Your task to perform on an android device: open chrome privacy settings Image 0: 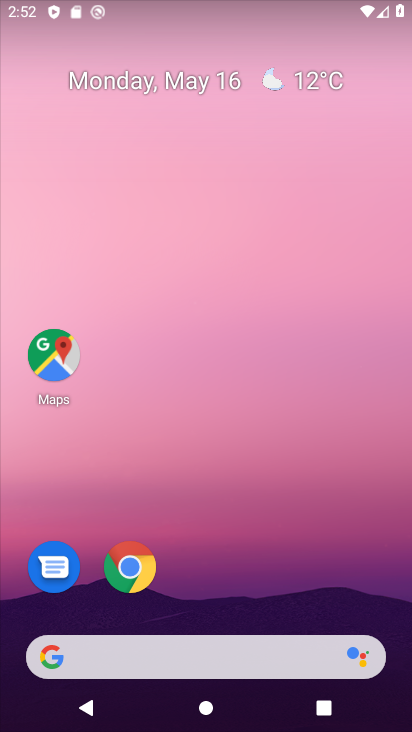
Step 0: click (138, 590)
Your task to perform on an android device: open chrome privacy settings Image 1: 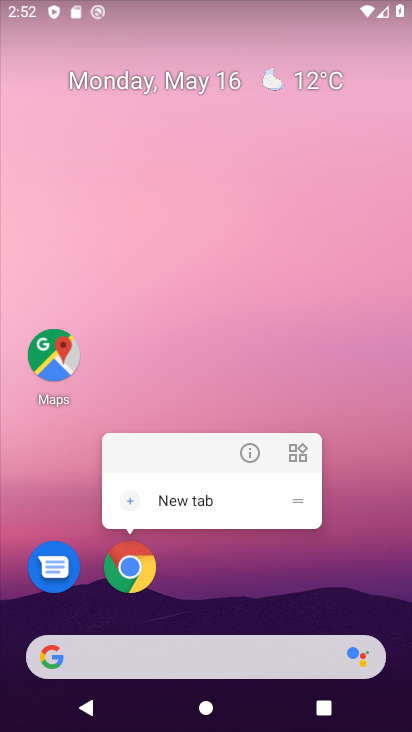
Step 1: click (141, 567)
Your task to perform on an android device: open chrome privacy settings Image 2: 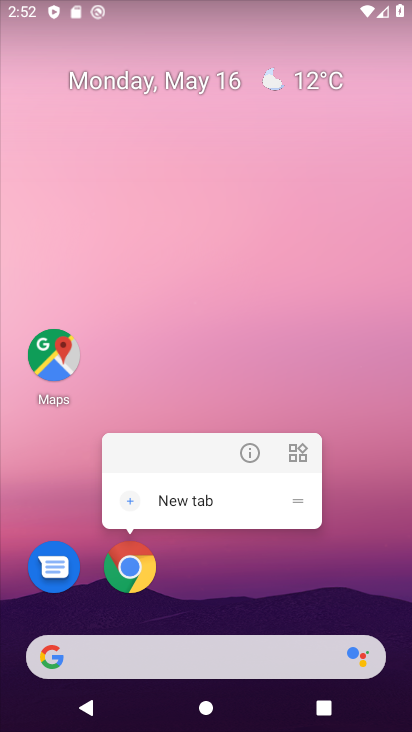
Step 2: click (141, 584)
Your task to perform on an android device: open chrome privacy settings Image 3: 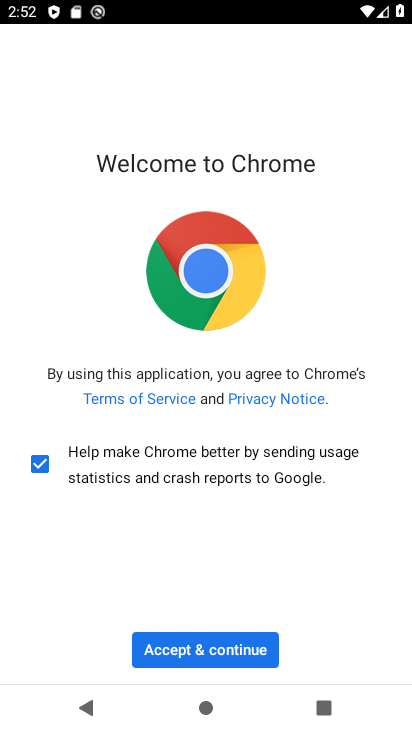
Step 3: click (191, 651)
Your task to perform on an android device: open chrome privacy settings Image 4: 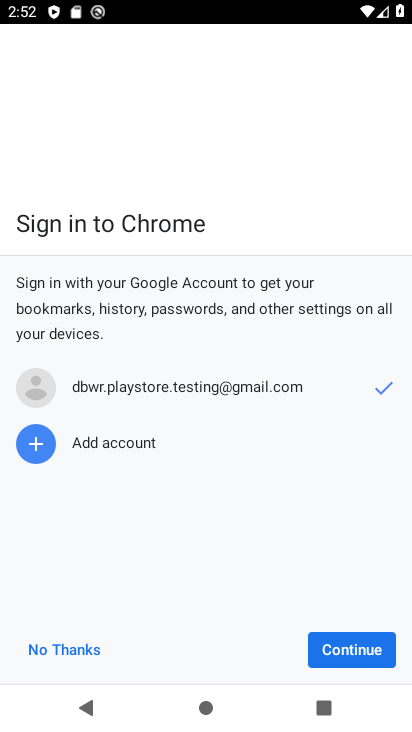
Step 4: click (394, 667)
Your task to perform on an android device: open chrome privacy settings Image 5: 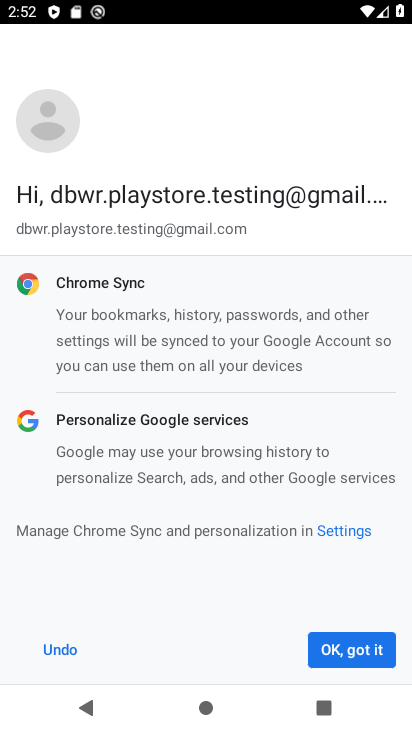
Step 5: click (356, 651)
Your task to perform on an android device: open chrome privacy settings Image 6: 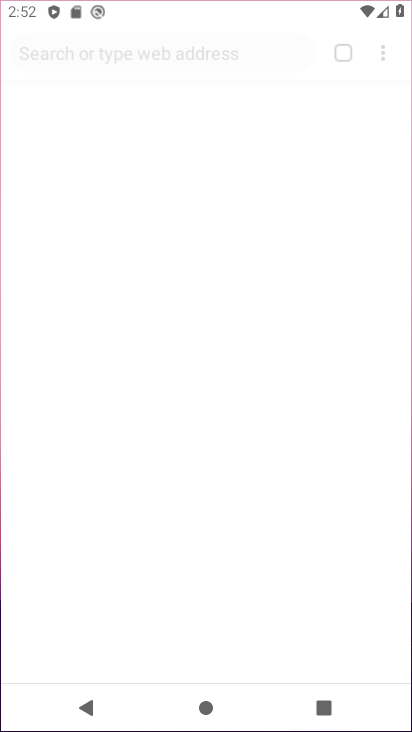
Step 6: click (356, 653)
Your task to perform on an android device: open chrome privacy settings Image 7: 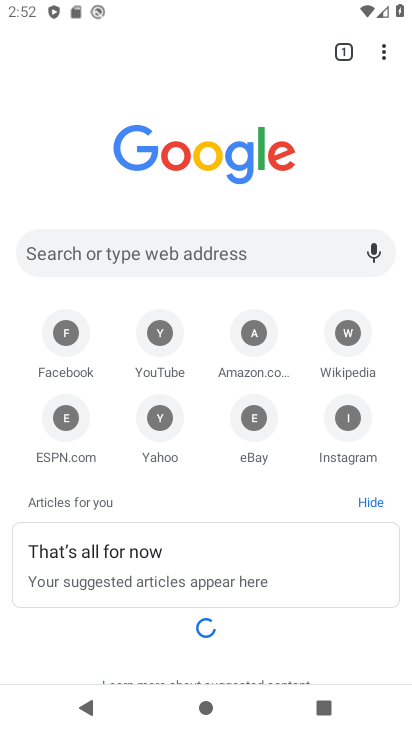
Step 7: drag from (390, 48) to (302, 437)
Your task to perform on an android device: open chrome privacy settings Image 8: 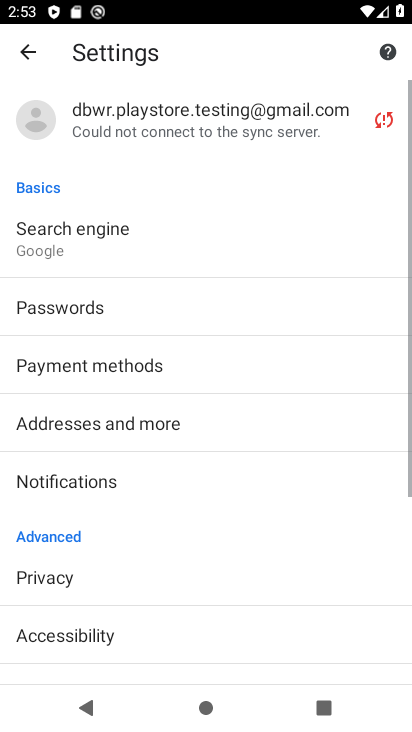
Step 8: drag from (198, 603) to (283, 375)
Your task to perform on an android device: open chrome privacy settings Image 9: 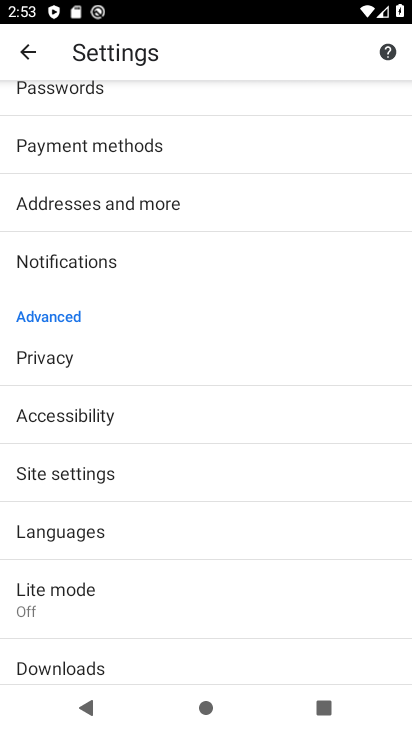
Step 9: click (118, 347)
Your task to perform on an android device: open chrome privacy settings Image 10: 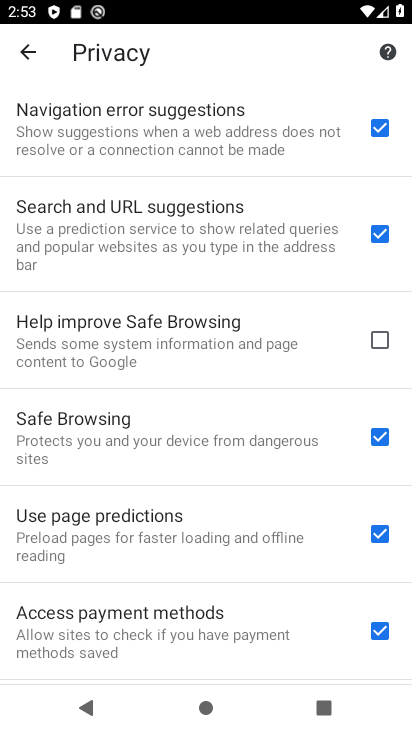
Step 10: task complete